Your task to perform on an android device: Open Google Chrome and open the bookmarks view Image 0: 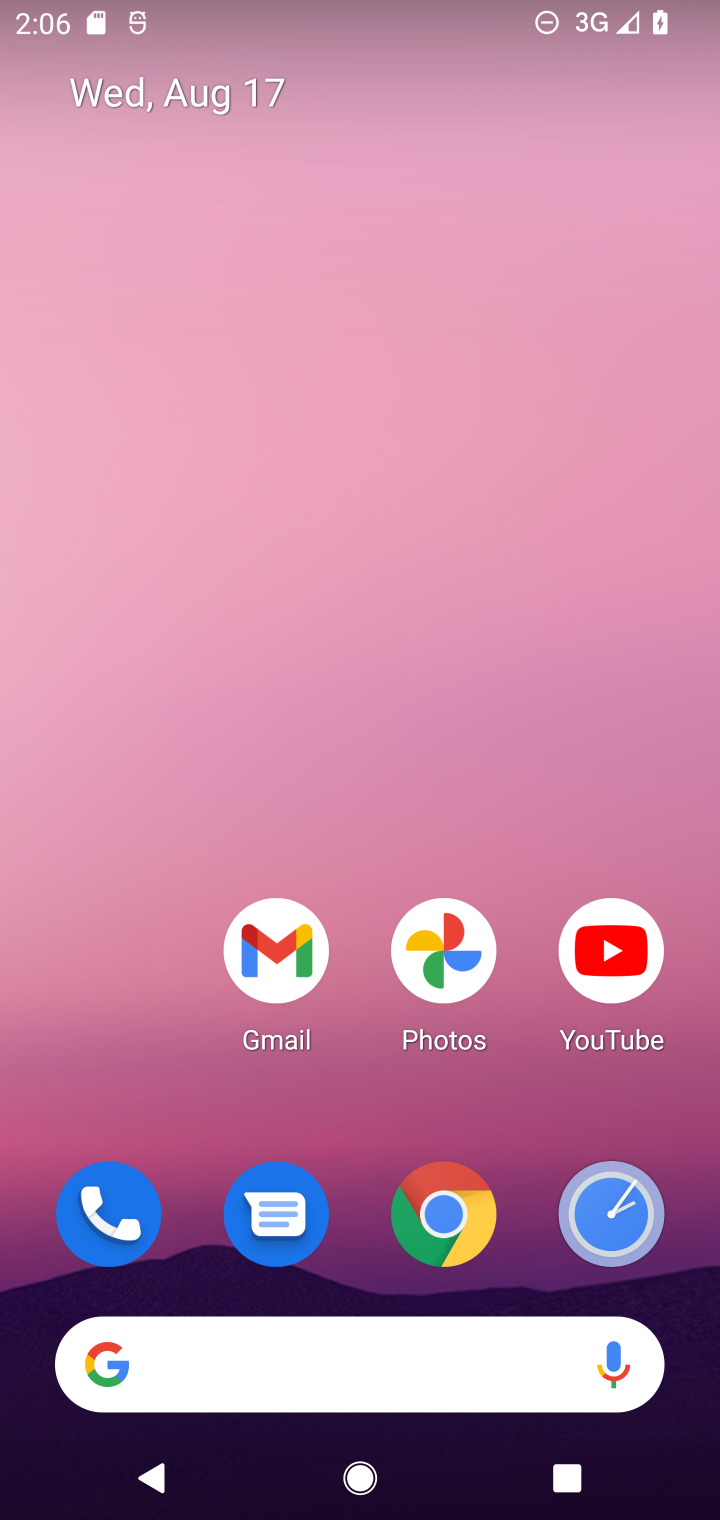
Step 0: click (447, 1207)
Your task to perform on an android device: Open Google Chrome and open the bookmarks view Image 1: 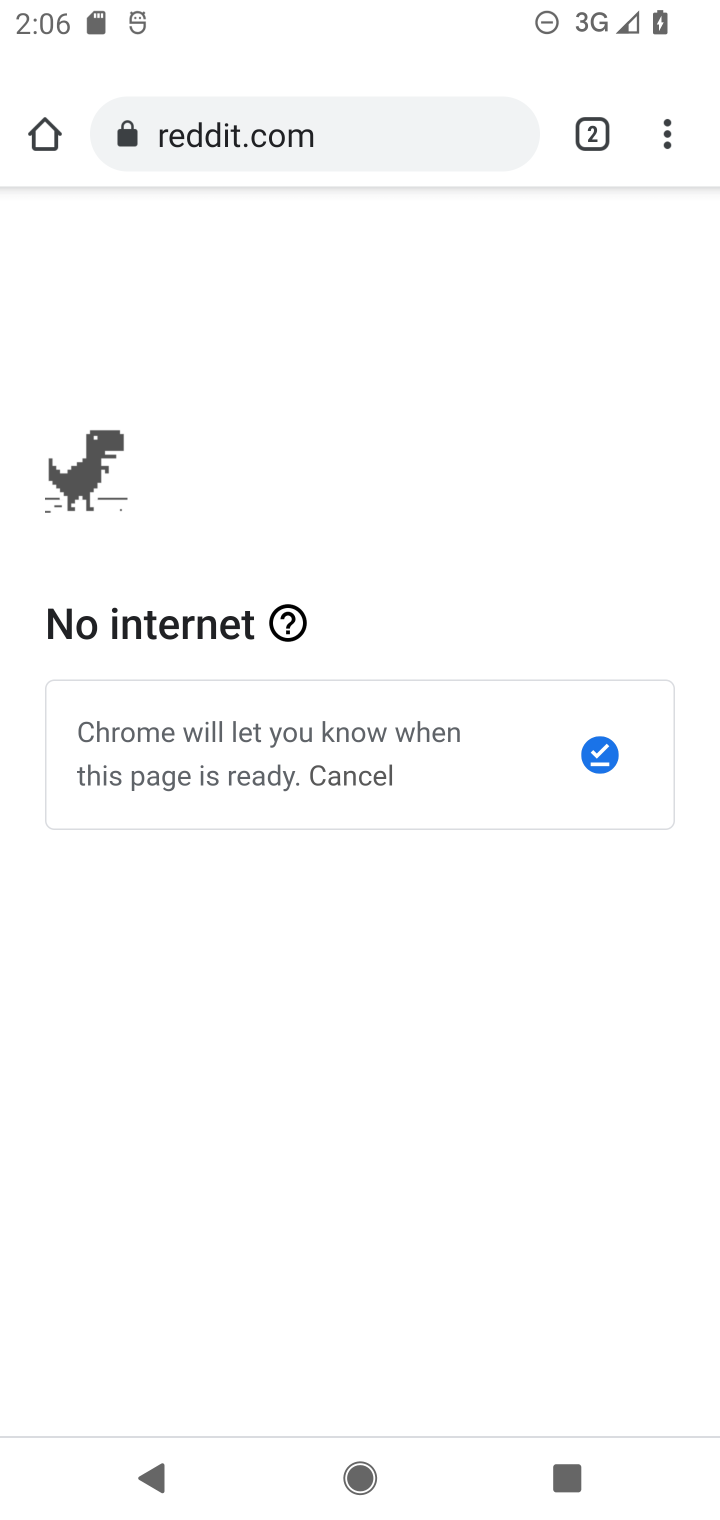
Step 1: click (678, 141)
Your task to perform on an android device: Open Google Chrome and open the bookmarks view Image 2: 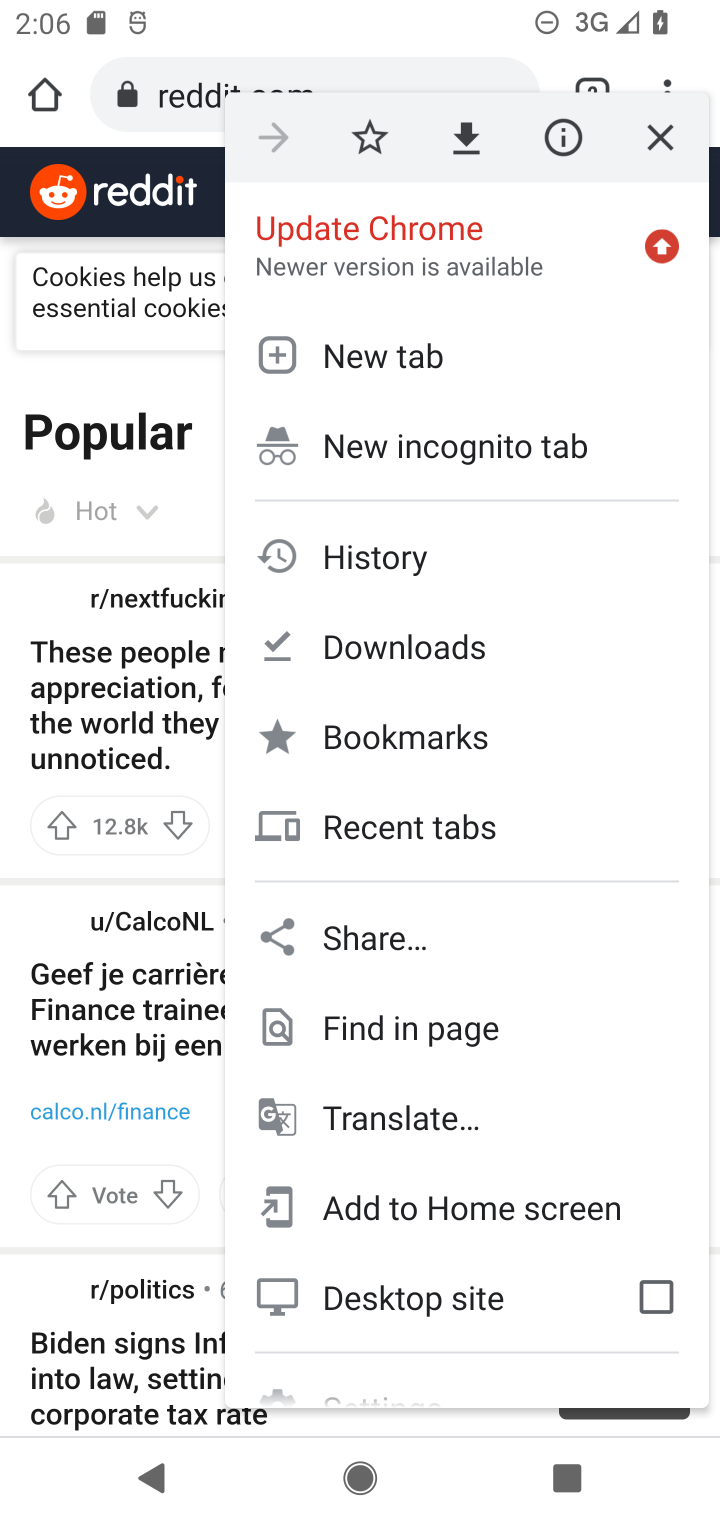
Step 2: click (401, 720)
Your task to perform on an android device: Open Google Chrome and open the bookmarks view Image 3: 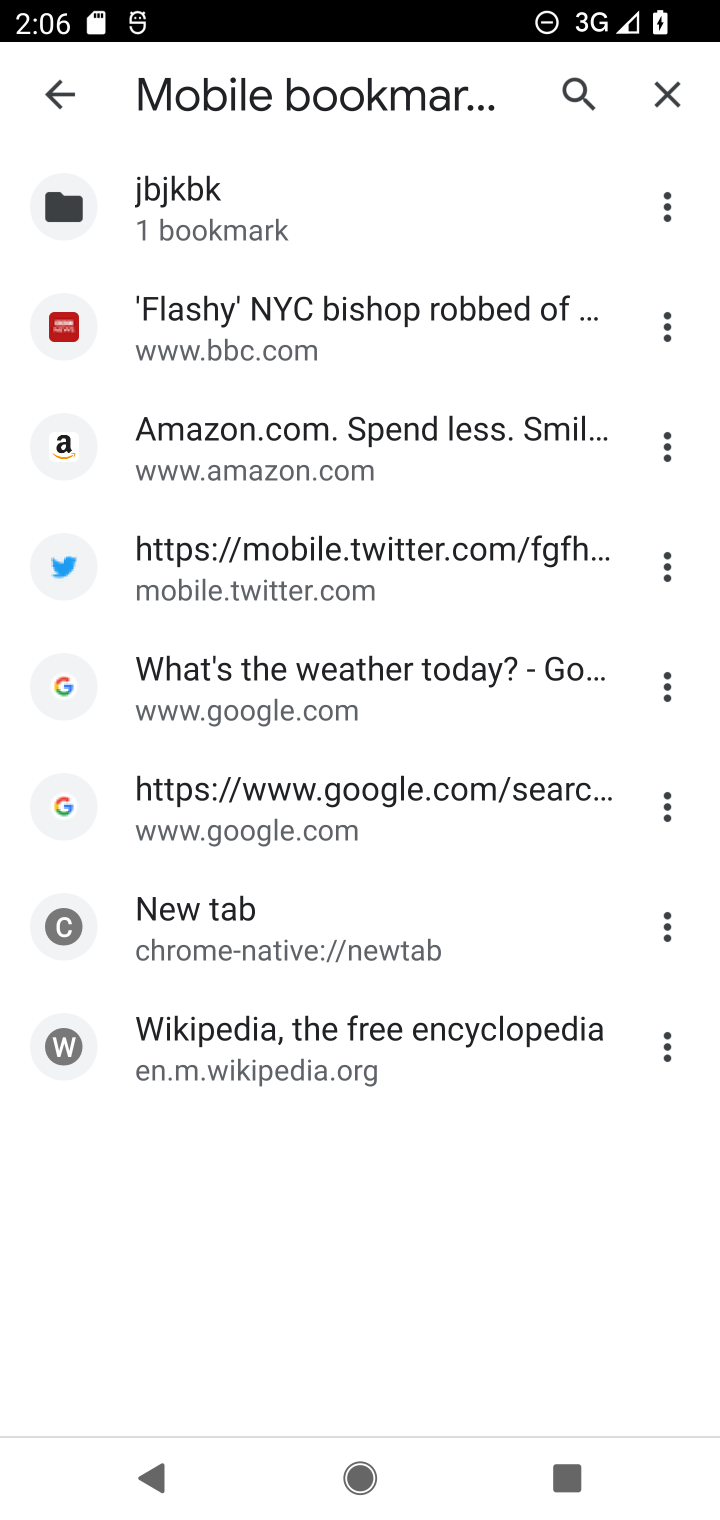
Step 3: click (668, 212)
Your task to perform on an android device: Open Google Chrome and open the bookmarks view Image 4: 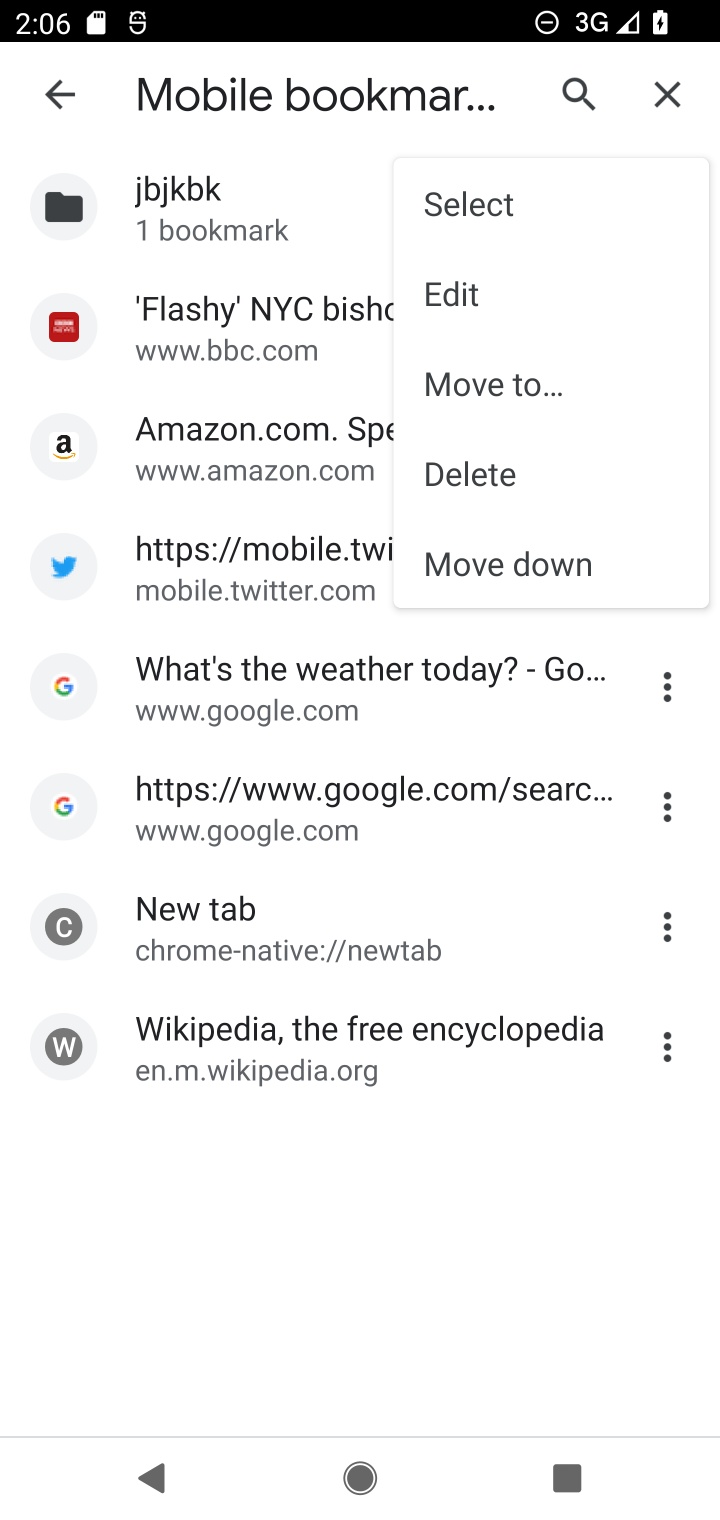
Step 4: click (476, 305)
Your task to perform on an android device: Open Google Chrome and open the bookmarks view Image 5: 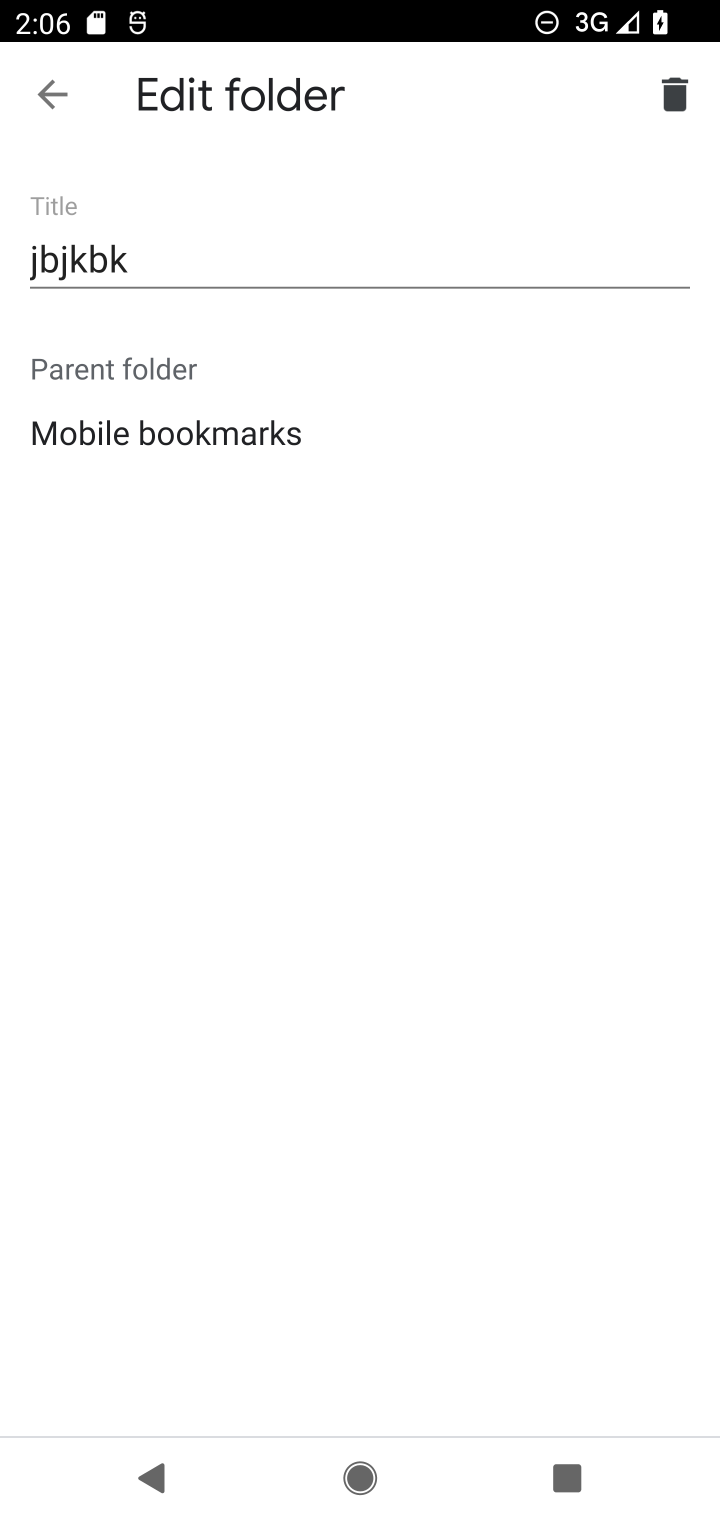
Step 5: task complete